Your task to perform on an android device: visit the assistant section in the google photos Image 0: 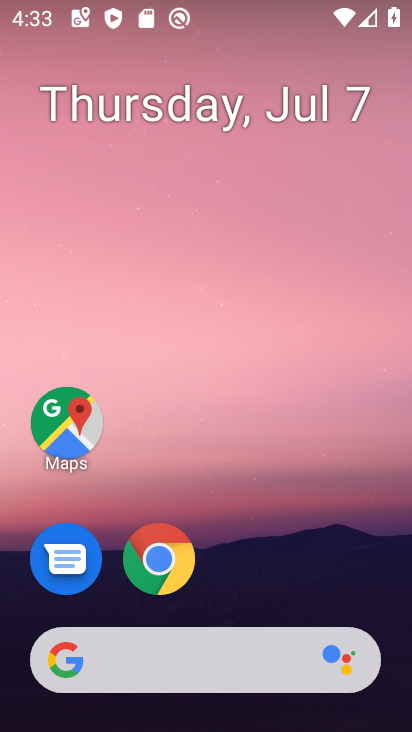
Step 0: drag from (212, 601) to (287, 14)
Your task to perform on an android device: visit the assistant section in the google photos Image 1: 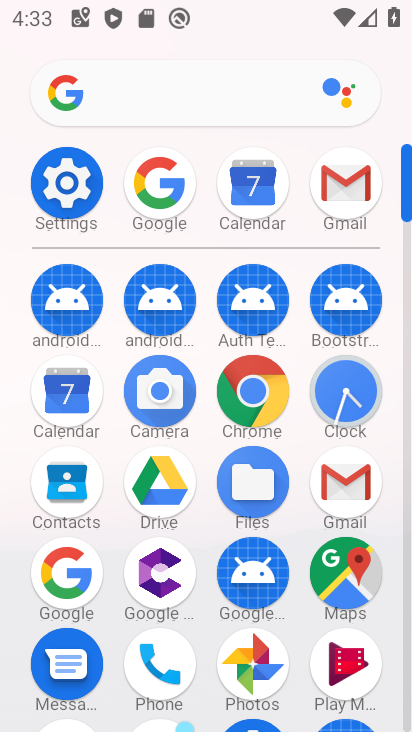
Step 1: click (236, 666)
Your task to perform on an android device: visit the assistant section in the google photos Image 2: 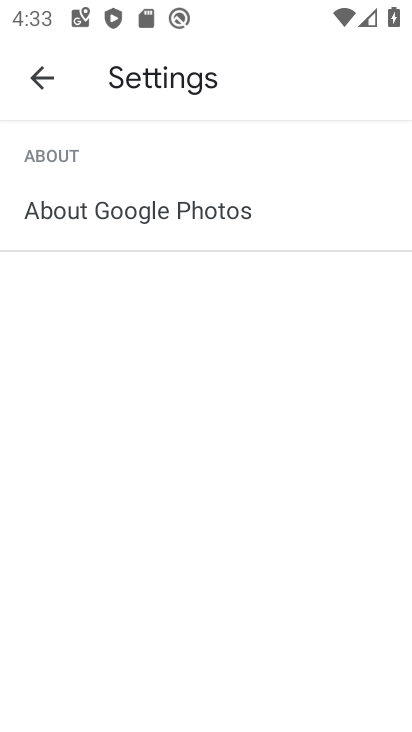
Step 2: click (48, 92)
Your task to perform on an android device: visit the assistant section in the google photos Image 3: 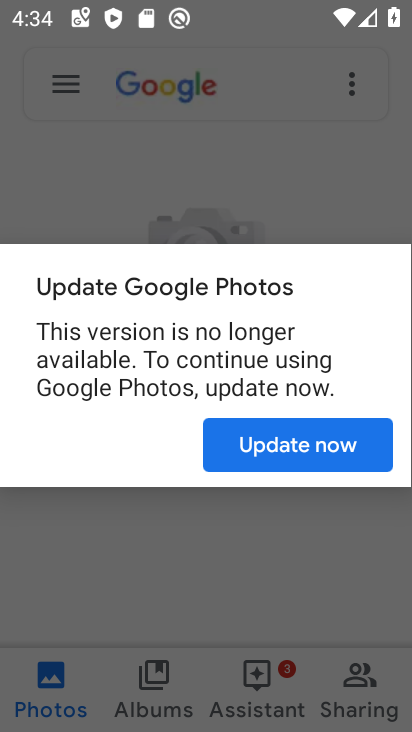
Step 3: click (267, 452)
Your task to perform on an android device: visit the assistant section in the google photos Image 4: 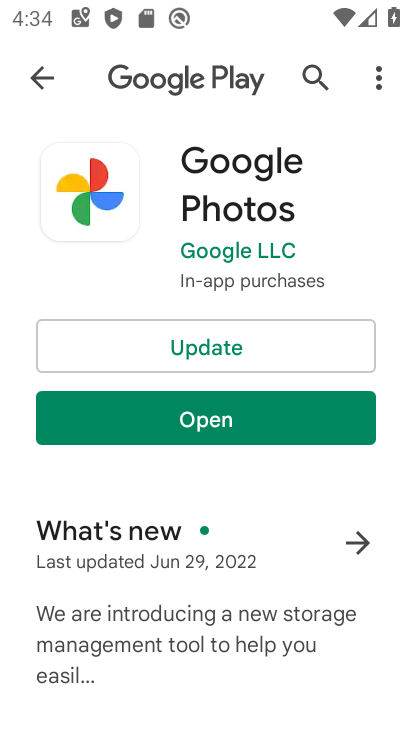
Step 4: click (219, 422)
Your task to perform on an android device: visit the assistant section in the google photos Image 5: 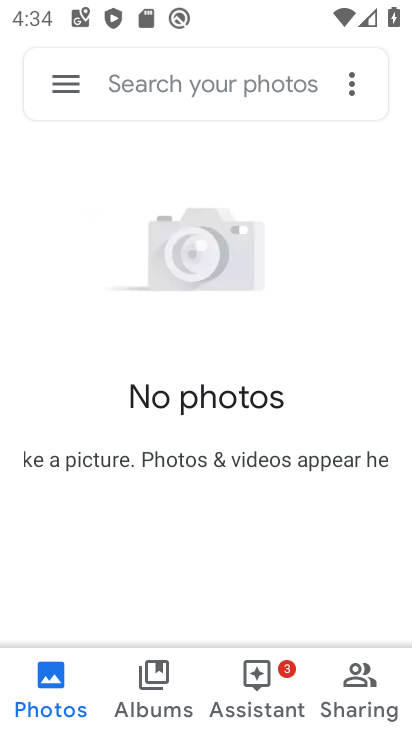
Step 5: click (239, 703)
Your task to perform on an android device: visit the assistant section in the google photos Image 6: 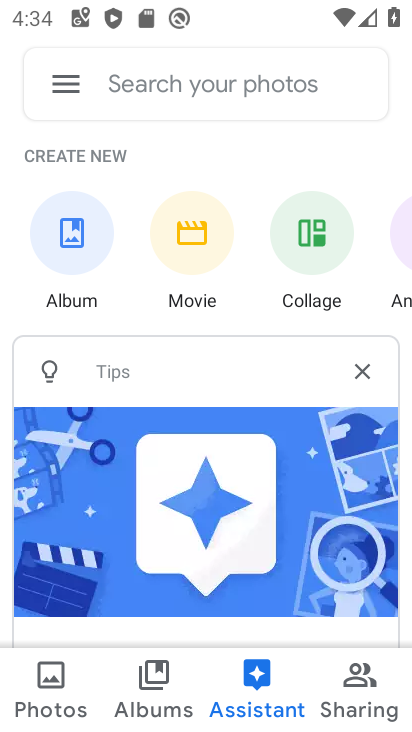
Step 6: task complete